Your task to perform on an android device: visit the assistant section in the google photos Image 0: 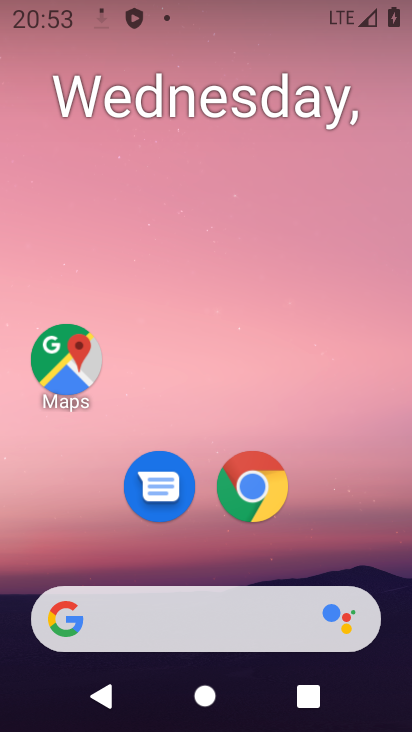
Step 0: drag from (193, 536) to (299, 16)
Your task to perform on an android device: visit the assistant section in the google photos Image 1: 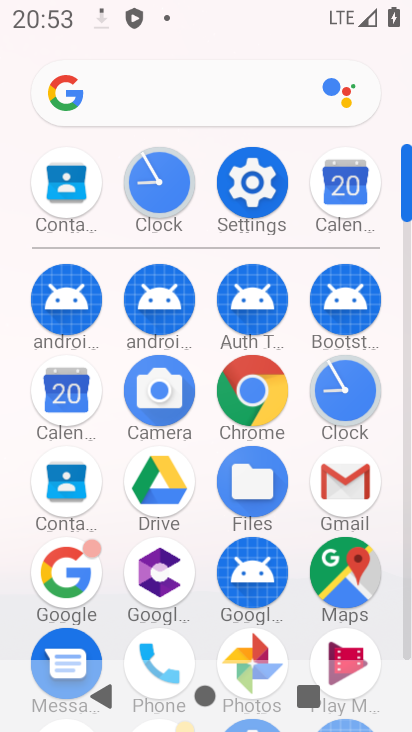
Step 1: click (262, 639)
Your task to perform on an android device: visit the assistant section in the google photos Image 2: 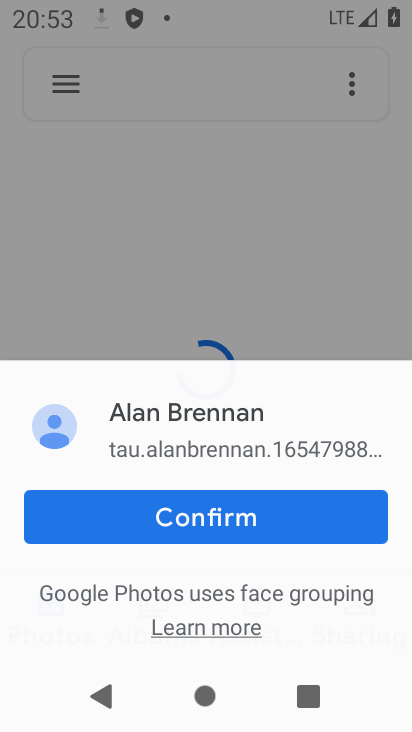
Step 2: click (262, 615)
Your task to perform on an android device: visit the assistant section in the google photos Image 3: 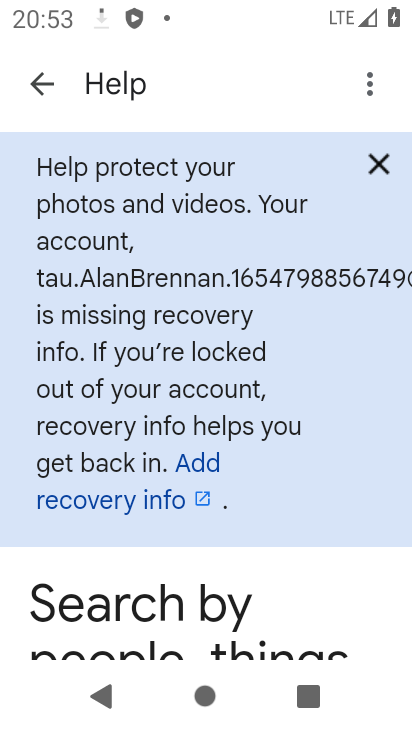
Step 3: drag from (213, 611) to (282, 0)
Your task to perform on an android device: visit the assistant section in the google photos Image 4: 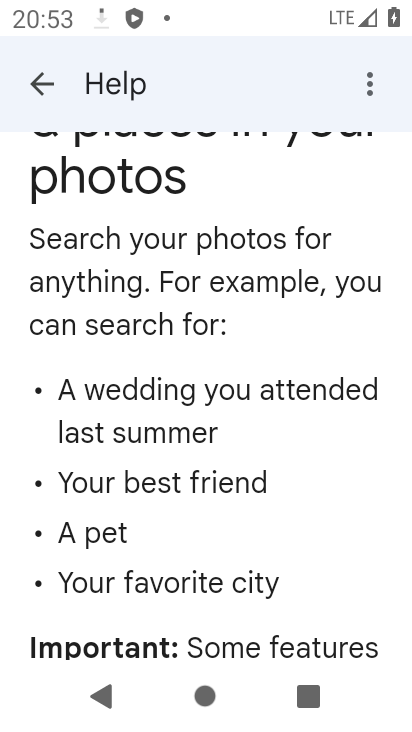
Step 4: click (53, 78)
Your task to perform on an android device: visit the assistant section in the google photos Image 5: 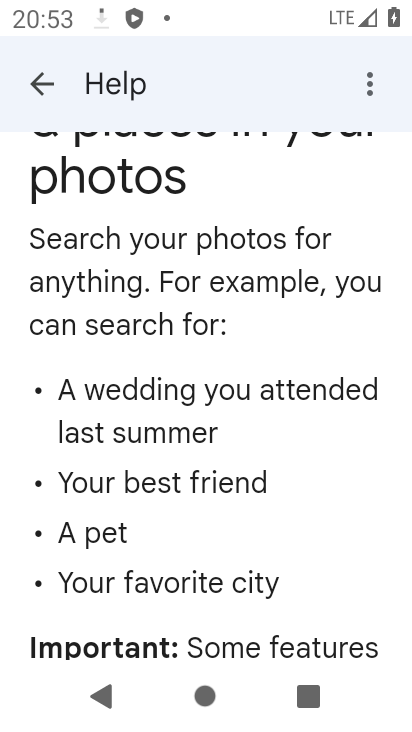
Step 5: click (39, 74)
Your task to perform on an android device: visit the assistant section in the google photos Image 6: 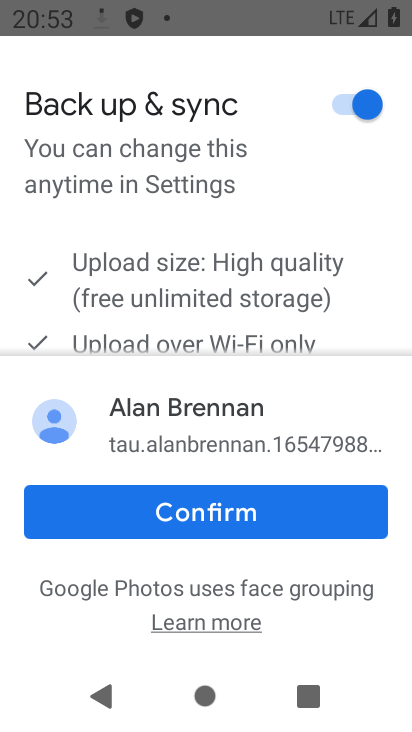
Step 6: click (199, 497)
Your task to perform on an android device: visit the assistant section in the google photos Image 7: 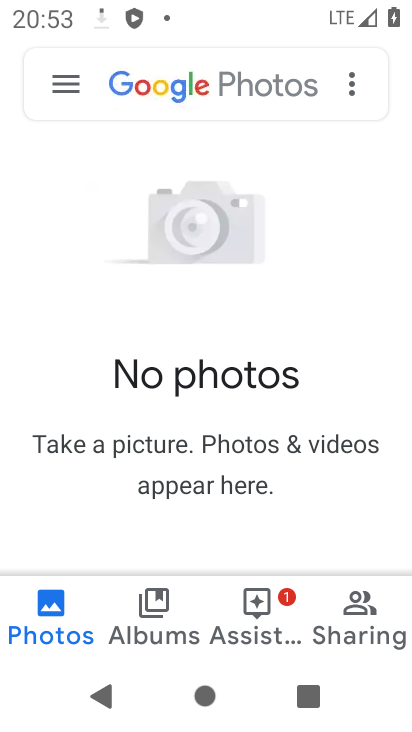
Step 7: click (253, 613)
Your task to perform on an android device: visit the assistant section in the google photos Image 8: 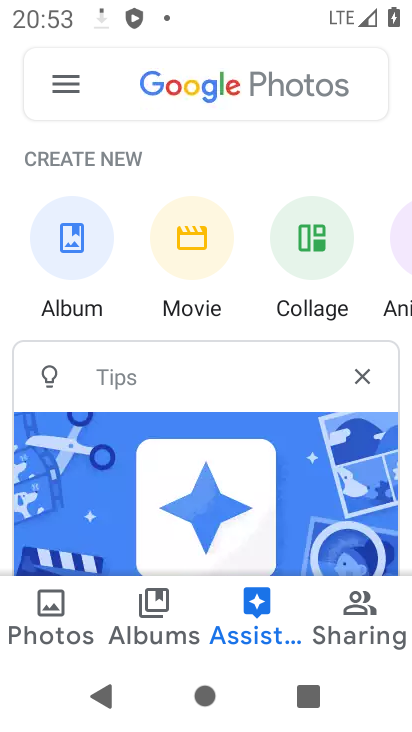
Step 8: task complete